Your task to perform on an android device: change notifications settings Image 0: 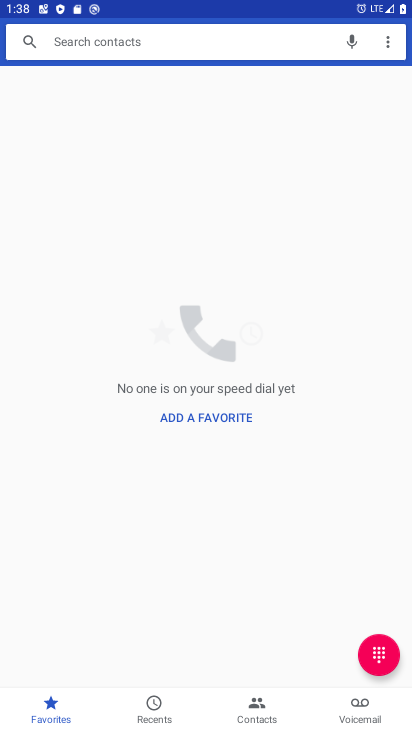
Step 0: press home button
Your task to perform on an android device: change notifications settings Image 1: 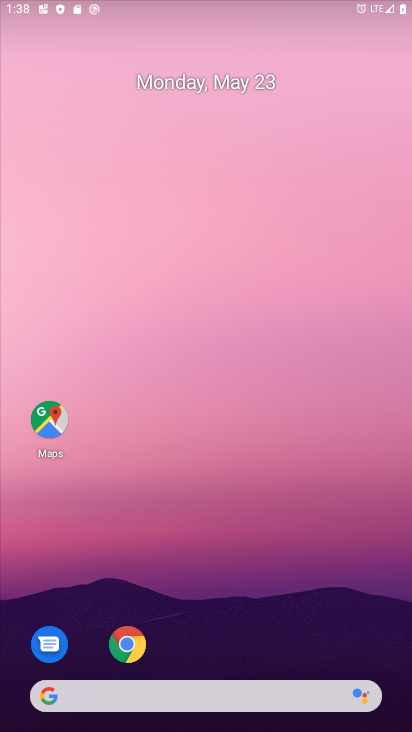
Step 1: drag from (331, 663) to (264, 122)
Your task to perform on an android device: change notifications settings Image 2: 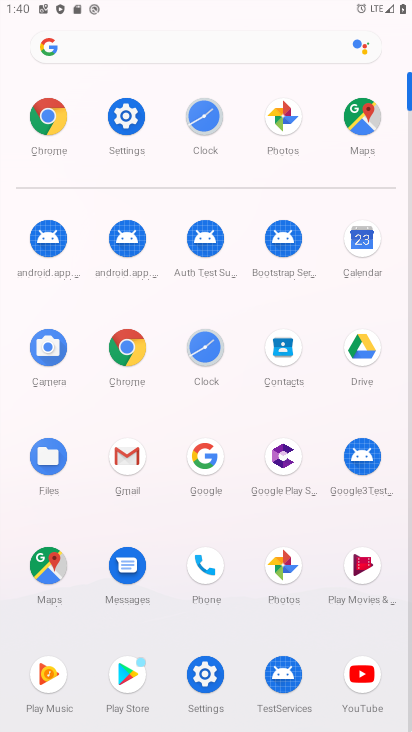
Step 2: click (203, 668)
Your task to perform on an android device: change notifications settings Image 3: 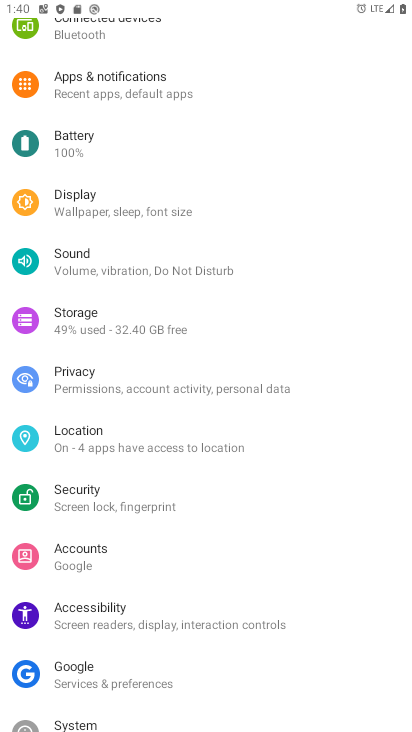
Step 3: click (144, 104)
Your task to perform on an android device: change notifications settings Image 4: 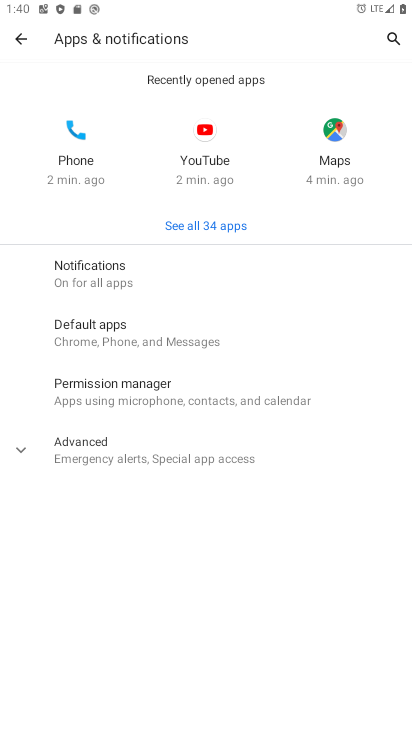
Step 4: click (176, 294)
Your task to perform on an android device: change notifications settings Image 5: 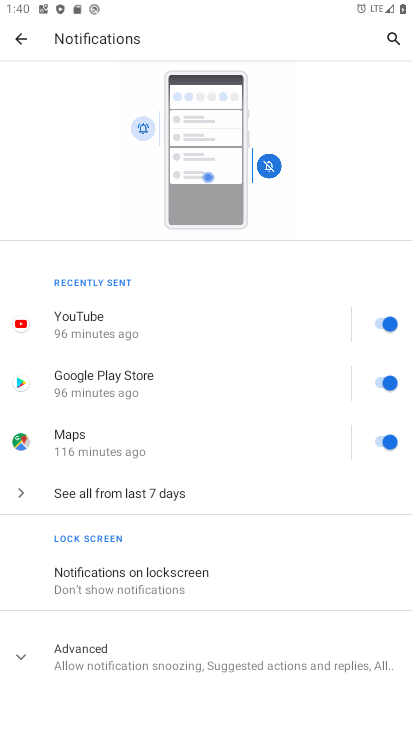
Step 5: task complete